Your task to perform on an android device: Go to Android settings Image 0: 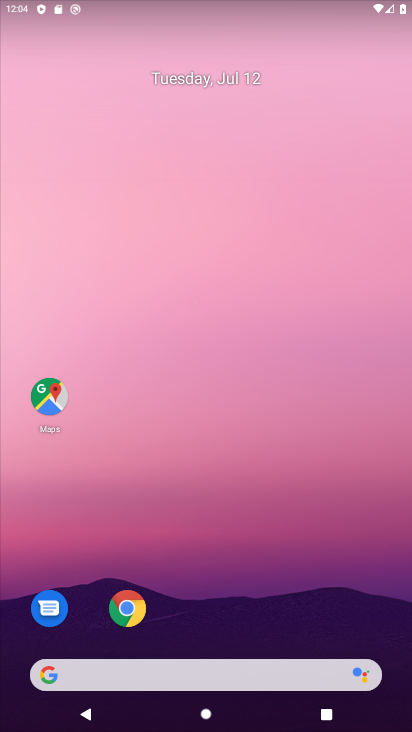
Step 0: drag from (214, 563) to (214, 401)
Your task to perform on an android device: Go to Android settings Image 1: 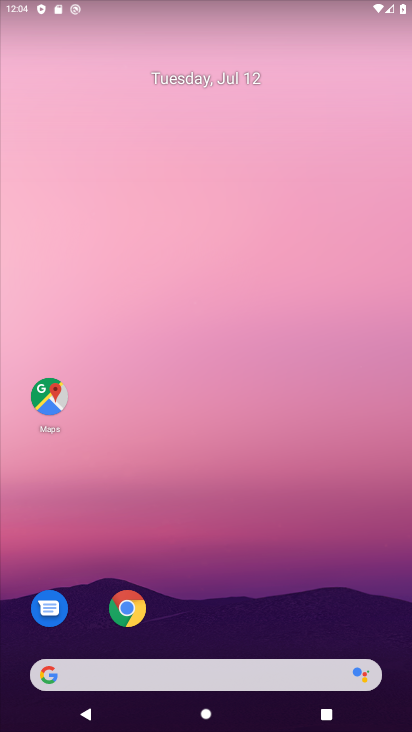
Step 1: drag from (163, 642) to (184, 272)
Your task to perform on an android device: Go to Android settings Image 2: 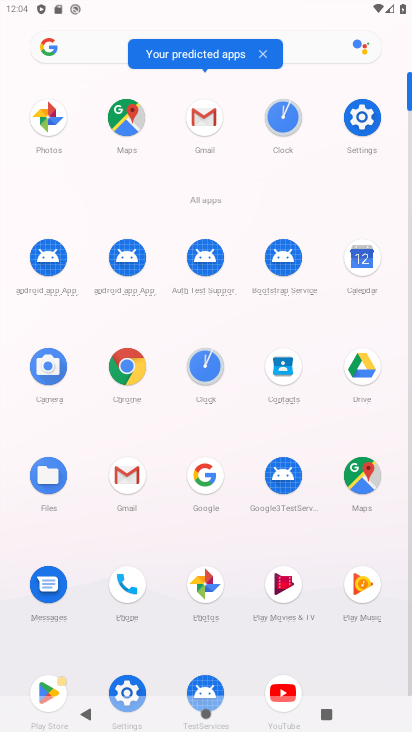
Step 2: click (373, 112)
Your task to perform on an android device: Go to Android settings Image 3: 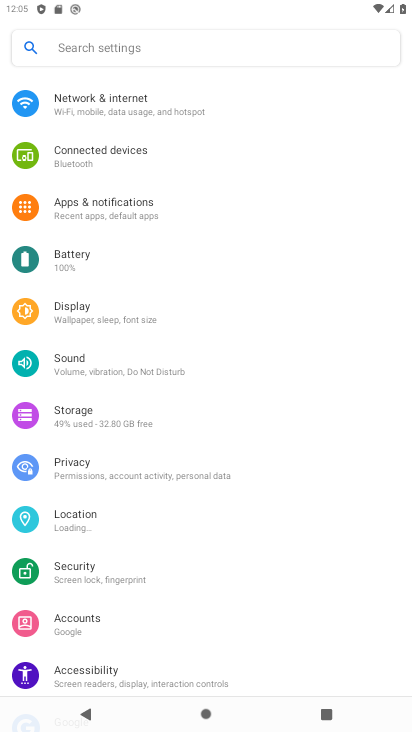
Step 3: task complete